Your task to perform on an android device: Open maps Image 0: 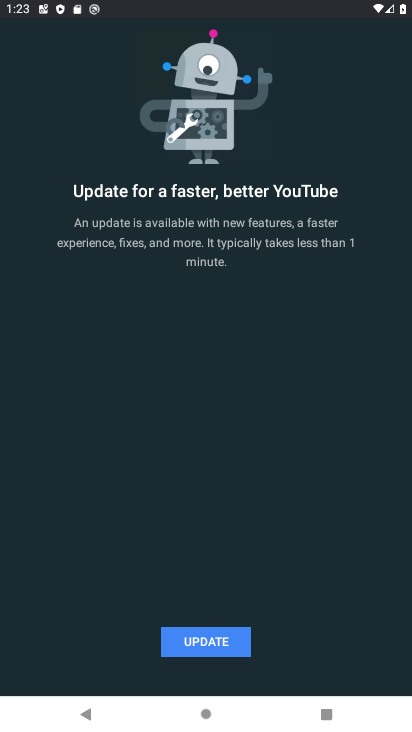
Step 0: press back button
Your task to perform on an android device: Open maps Image 1: 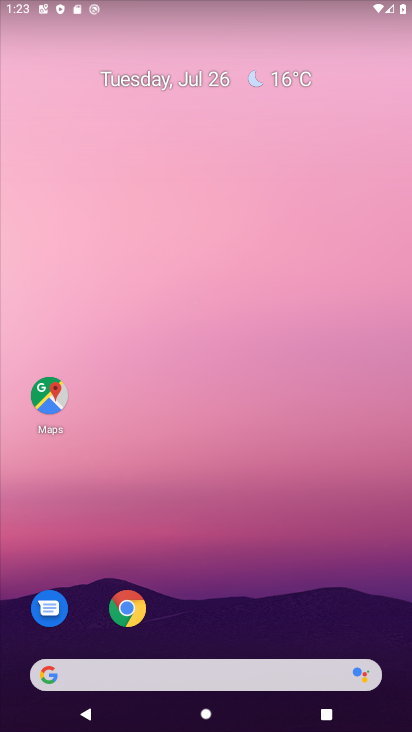
Step 1: click (46, 420)
Your task to perform on an android device: Open maps Image 2: 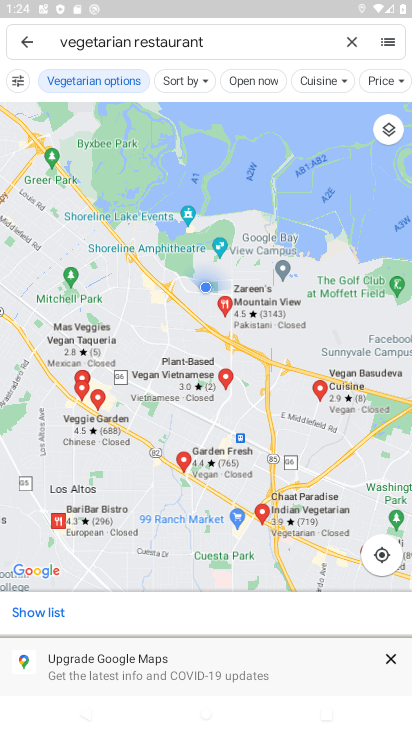
Step 2: task complete